Your task to perform on an android device: turn on data saver in the chrome app Image 0: 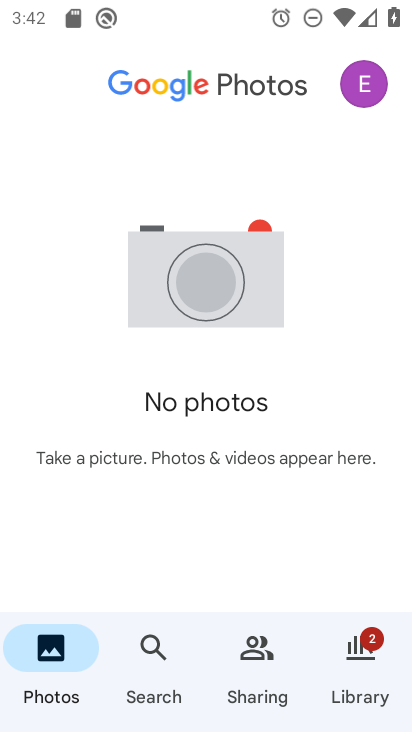
Step 0: press home button
Your task to perform on an android device: turn on data saver in the chrome app Image 1: 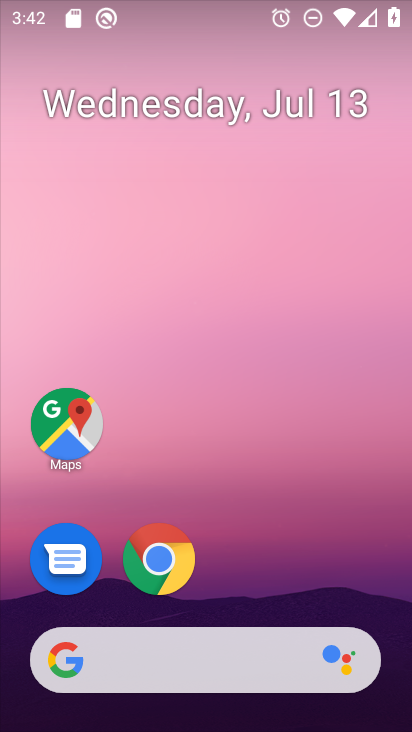
Step 1: drag from (376, 587) to (410, 21)
Your task to perform on an android device: turn on data saver in the chrome app Image 2: 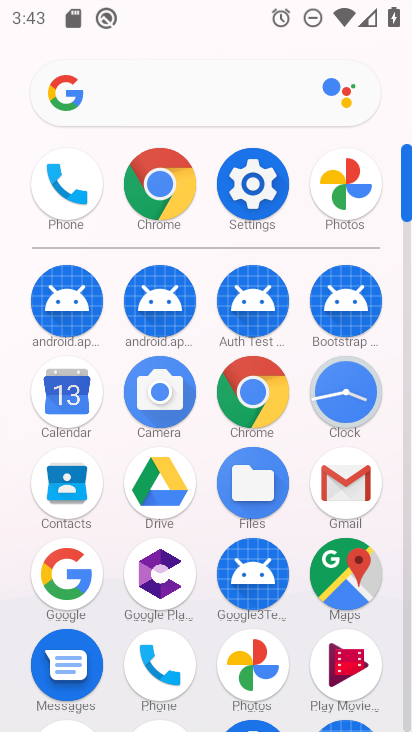
Step 2: click (257, 400)
Your task to perform on an android device: turn on data saver in the chrome app Image 3: 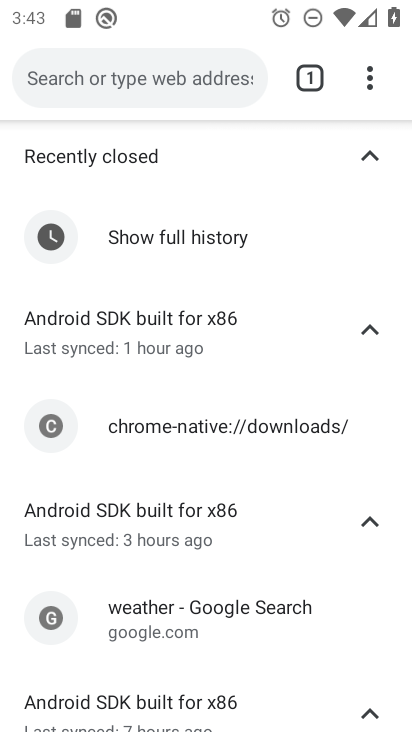
Step 3: click (369, 83)
Your task to perform on an android device: turn on data saver in the chrome app Image 4: 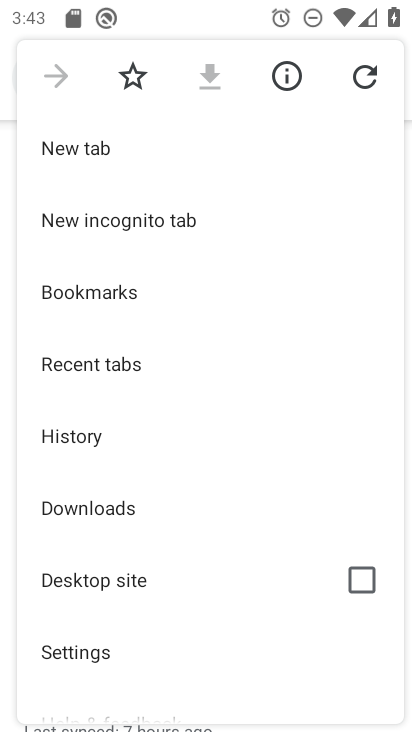
Step 4: click (104, 656)
Your task to perform on an android device: turn on data saver in the chrome app Image 5: 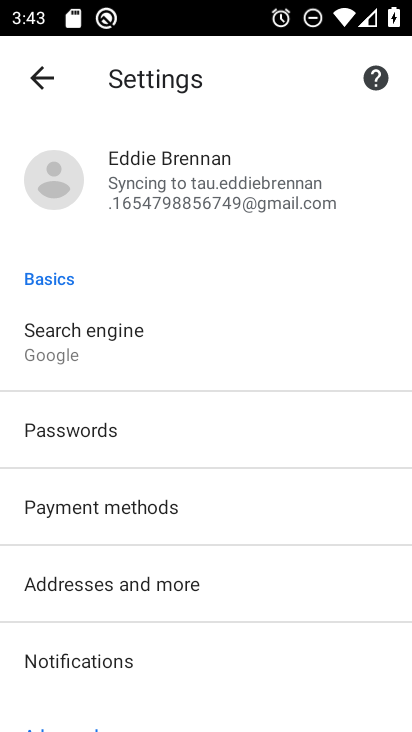
Step 5: drag from (293, 615) to (302, 513)
Your task to perform on an android device: turn on data saver in the chrome app Image 6: 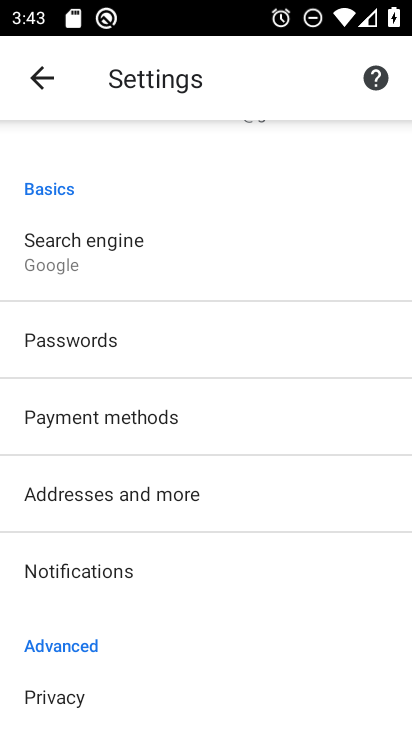
Step 6: drag from (296, 556) to (296, 506)
Your task to perform on an android device: turn on data saver in the chrome app Image 7: 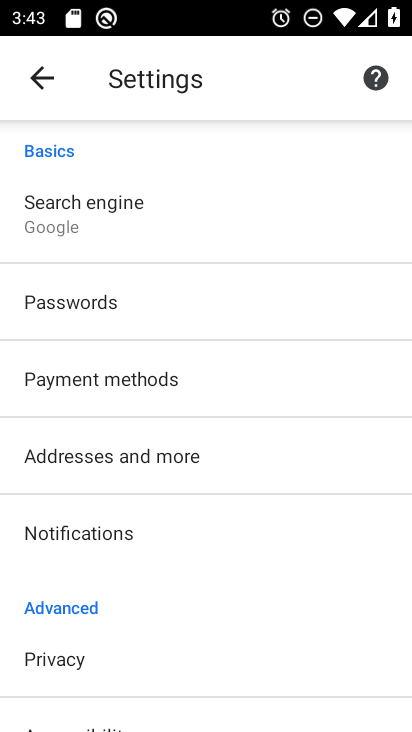
Step 7: drag from (316, 589) to (316, 515)
Your task to perform on an android device: turn on data saver in the chrome app Image 8: 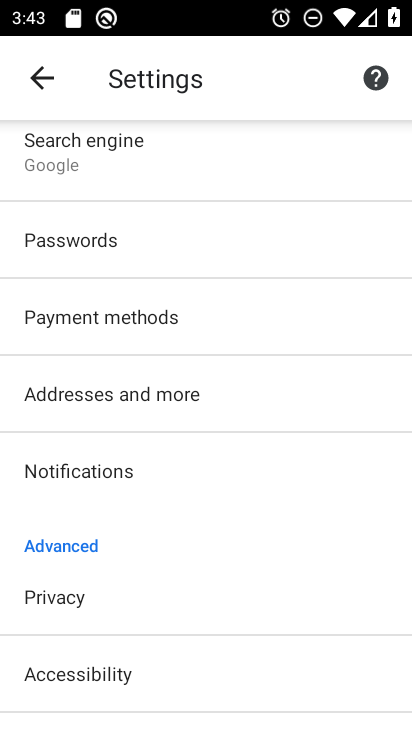
Step 8: drag from (328, 586) to (330, 508)
Your task to perform on an android device: turn on data saver in the chrome app Image 9: 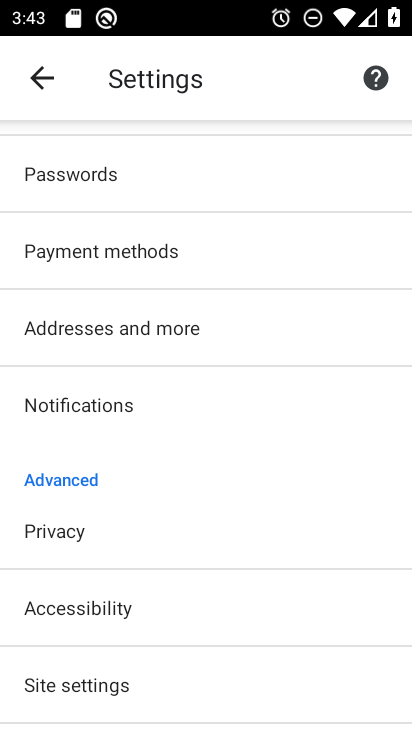
Step 9: drag from (339, 588) to (342, 507)
Your task to perform on an android device: turn on data saver in the chrome app Image 10: 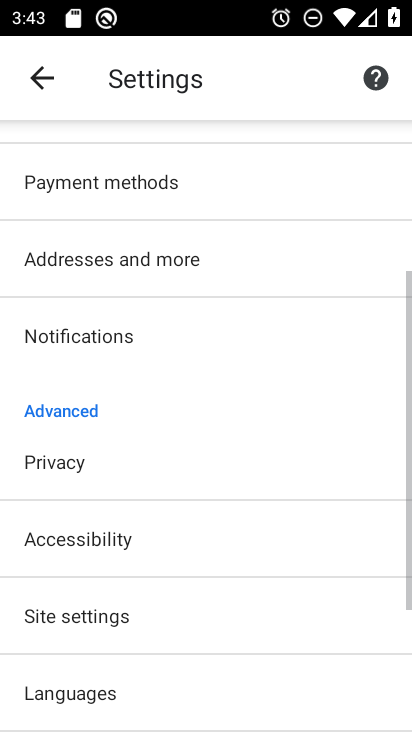
Step 10: drag from (341, 599) to (342, 510)
Your task to perform on an android device: turn on data saver in the chrome app Image 11: 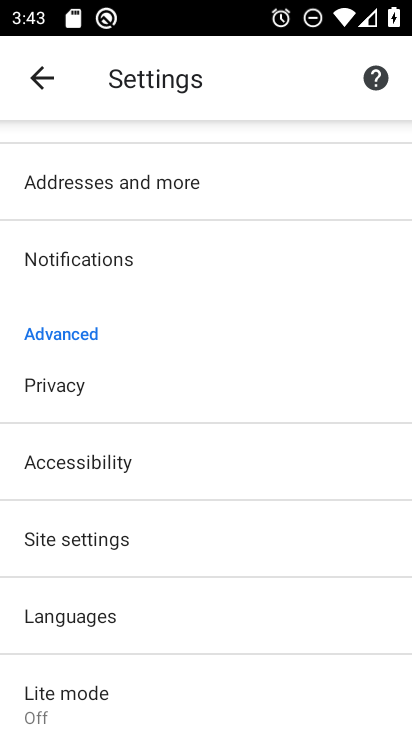
Step 11: drag from (337, 581) to (335, 451)
Your task to perform on an android device: turn on data saver in the chrome app Image 12: 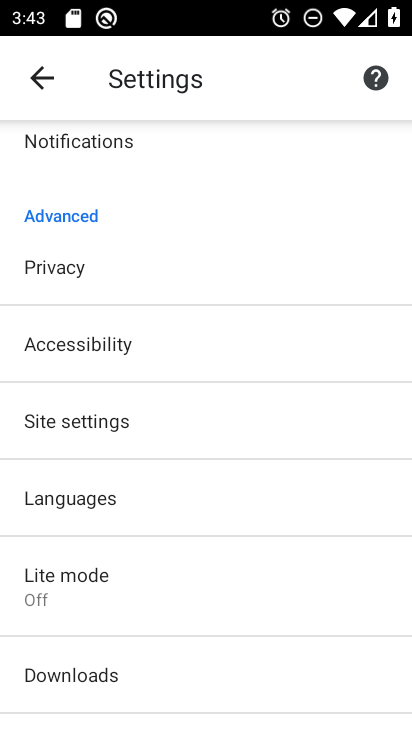
Step 12: drag from (335, 576) to (339, 420)
Your task to perform on an android device: turn on data saver in the chrome app Image 13: 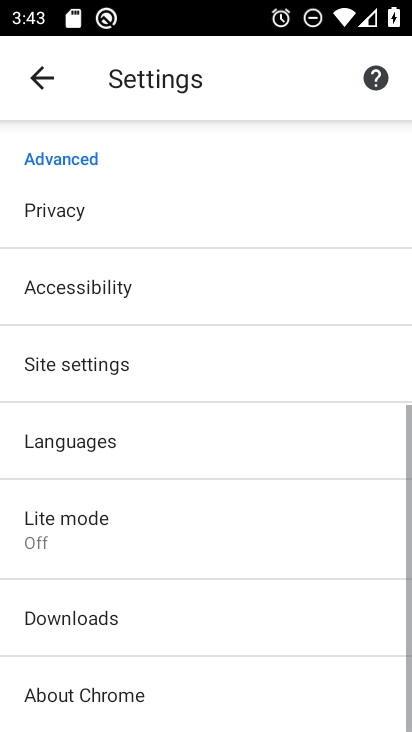
Step 13: click (328, 533)
Your task to perform on an android device: turn on data saver in the chrome app Image 14: 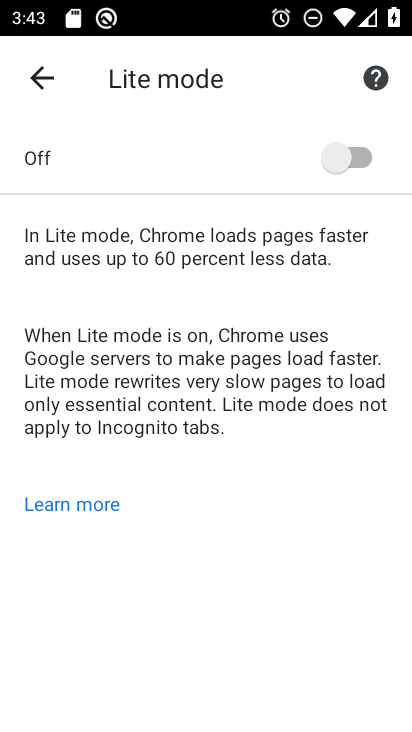
Step 14: click (357, 170)
Your task to perform on an android device: turn on data saver in the chrome app Image 15: 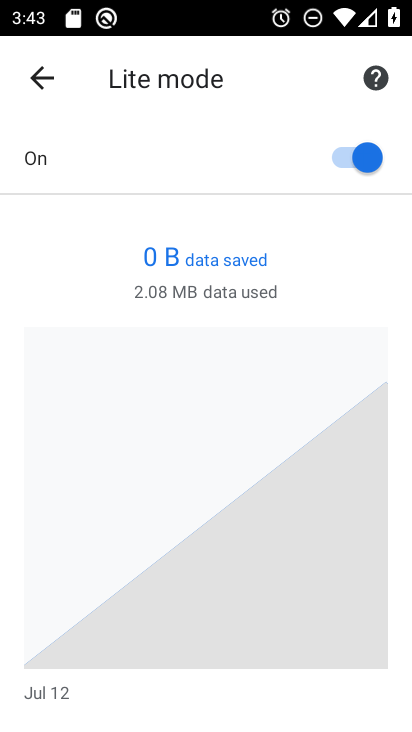
Step 15: task complete